Your task to perform on an android device: change timer sound Image 0: 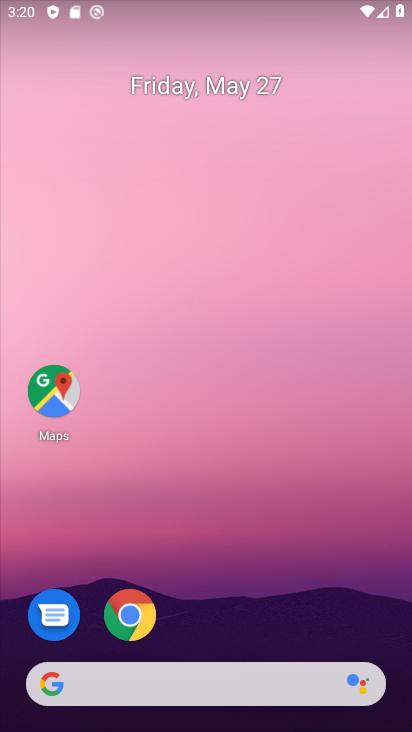
Step 0: drag from (123, 729) to (108, 27)
Your task to perform on an android device: change timer sound Image 1: 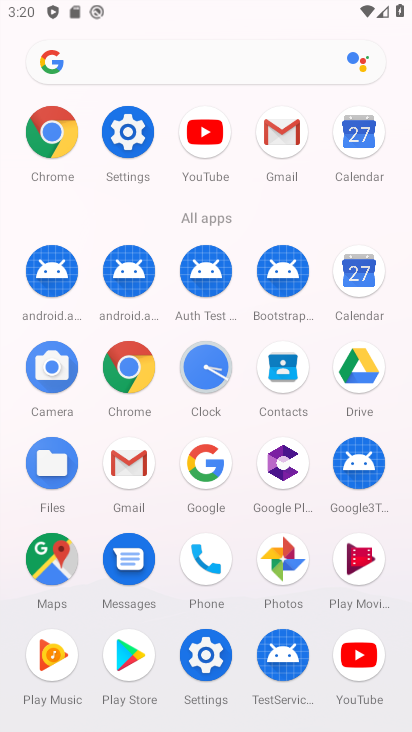
Step 1: click (215, 381)
Your task to perform on an android device: change timer sound Image 2: 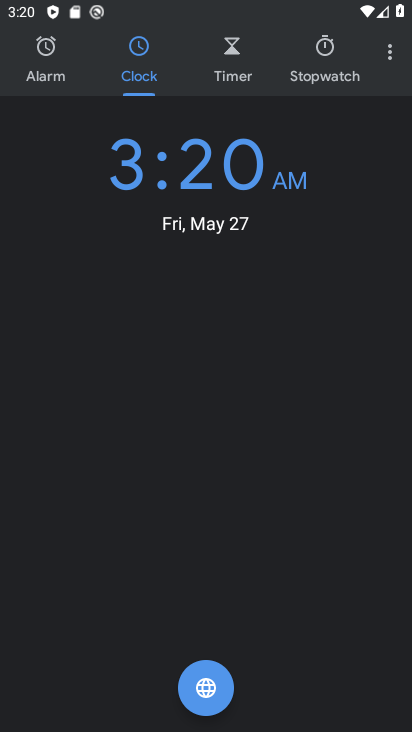
Step 2: click (394, 57)
Your task to perform on an android device: change timer sound Image 3: 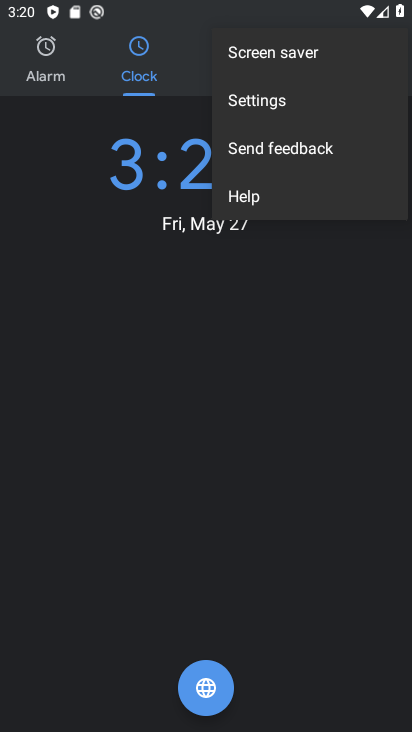
Step 3: click (308, 104)
Your task to perform on an android device: change timer sound Image 4: 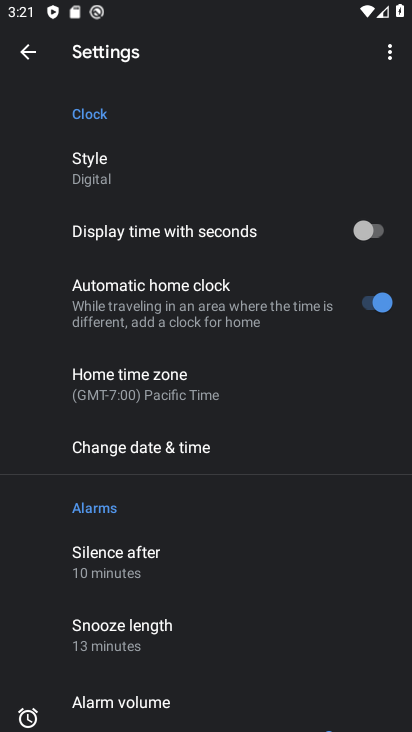
Step 4: drag from (228, 604) to (258, 92)
Your task to perform on an android device: change timer sound Image 5: 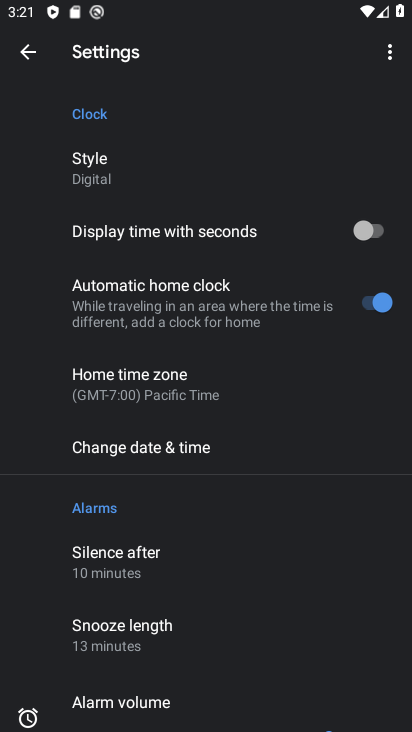
Step 5: drag from (259, 667) to (290, 170)
Your task to perform on an android device: change timer sound Image 6: 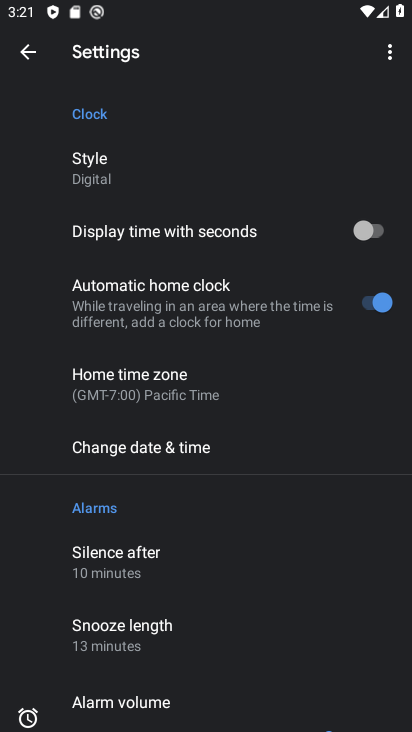
Step 6: drag from (209, 711) to (302, 153)
Your task to perform on an android device: change timer sound Image 7: 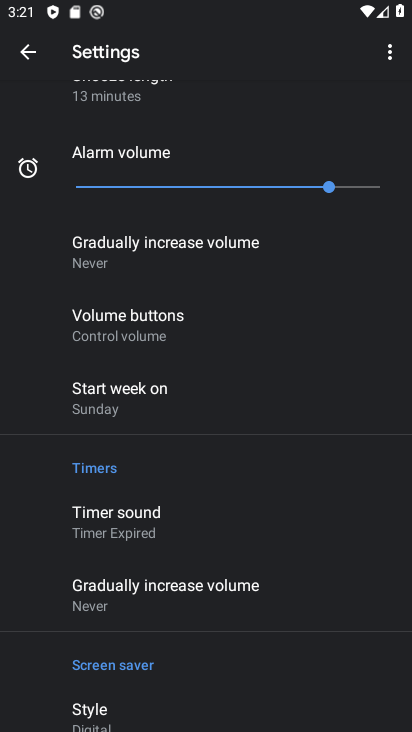
Step 7: click (127, 535)
Your task to perform on an android device: change timer sound Image 8: 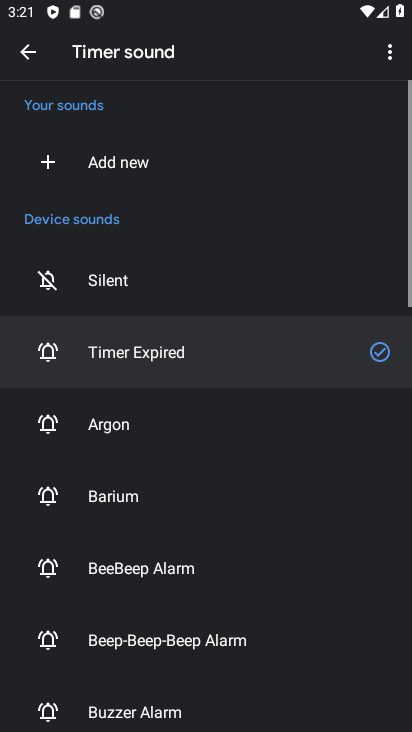
Step 8: click (133, 427)
Your task to perform on an android device: change timer sound Image 9: 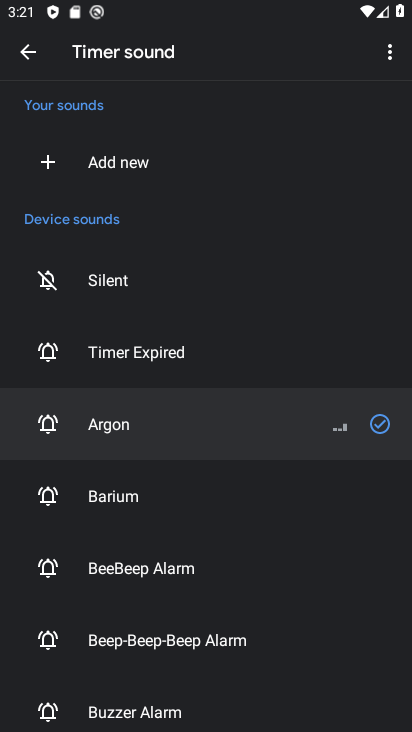
Step 9: task complete